Your task to perform on an android device: open app "Fetch Rewards" Image 0: 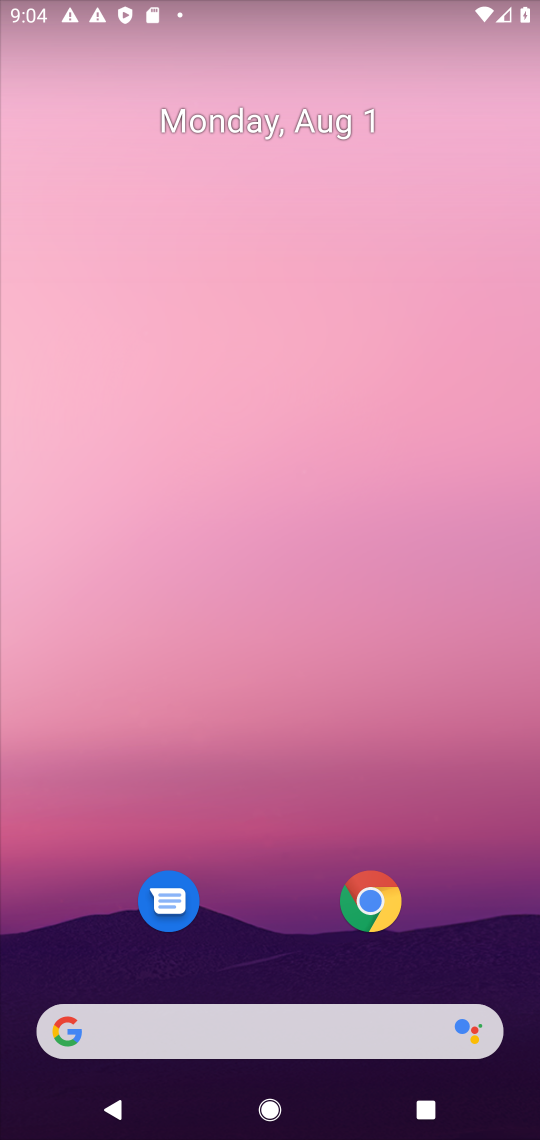
Step 0: press home button
Your task to perform on an android device: open app "Fetch Rewards" Image 1: 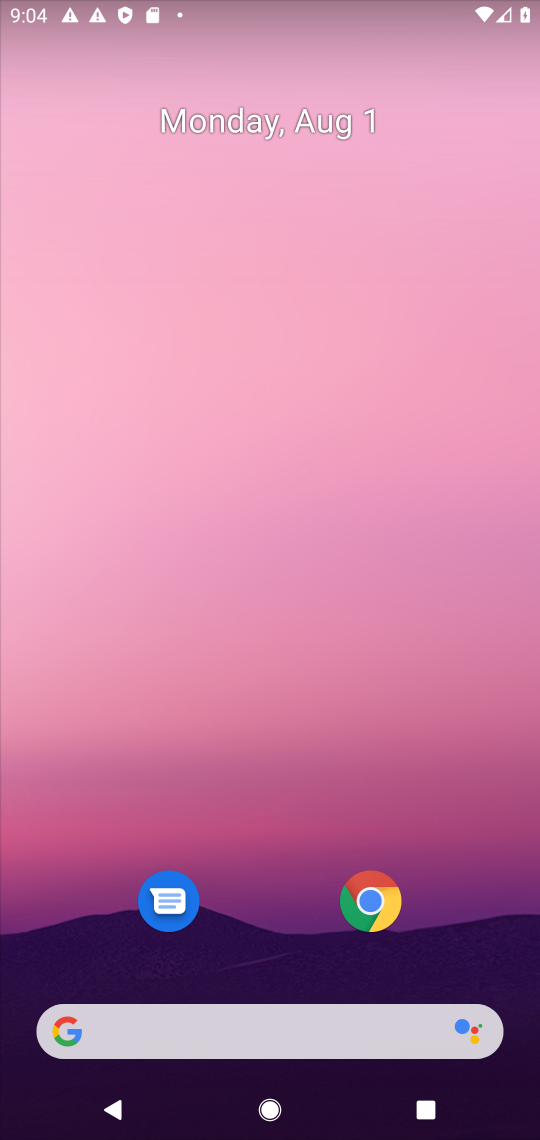
Step 1: drag from (259, 936) to (240, 65)
Your task to perform on an android device: open app "Fetch Rewards" Image 2: 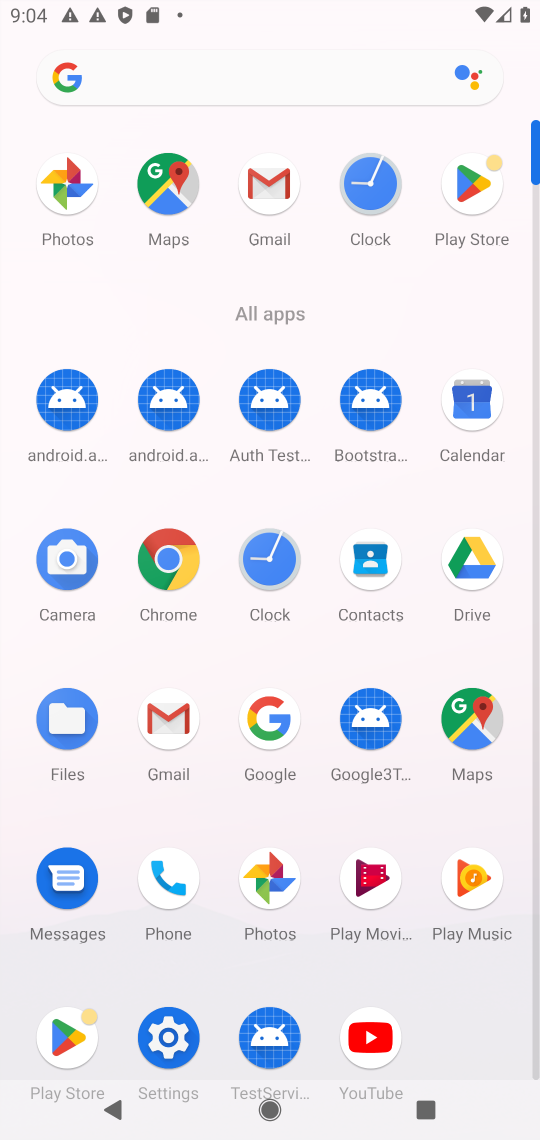
Step 2: click (478, 178)
Your task to perform on an android device: open app "Fetch Rewards" Image 3: 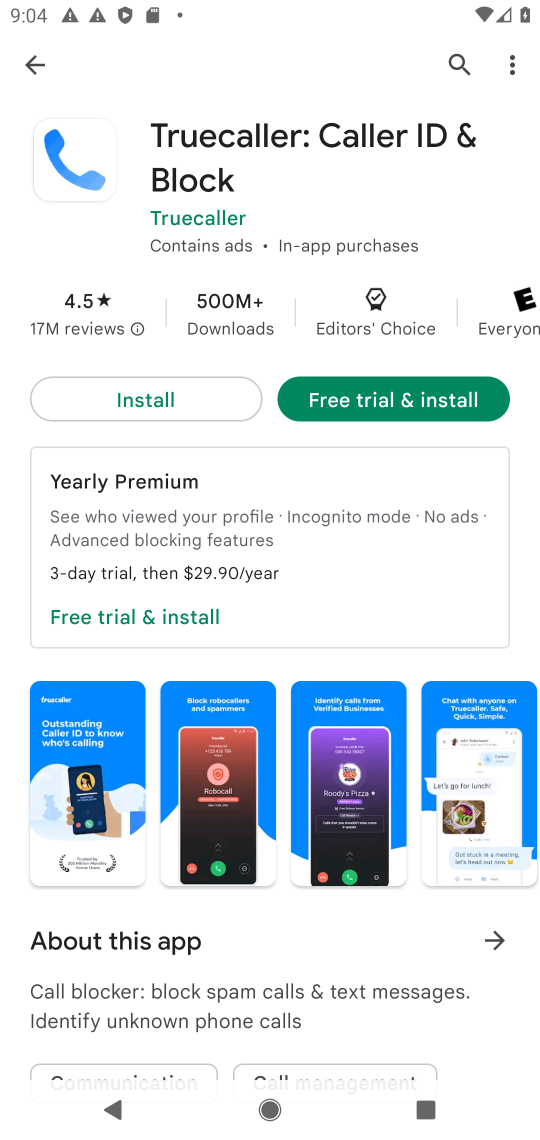
Step 3: click (456, 70)
Your task to perform on an android device: open app "Fetch Rewards" Image 4: 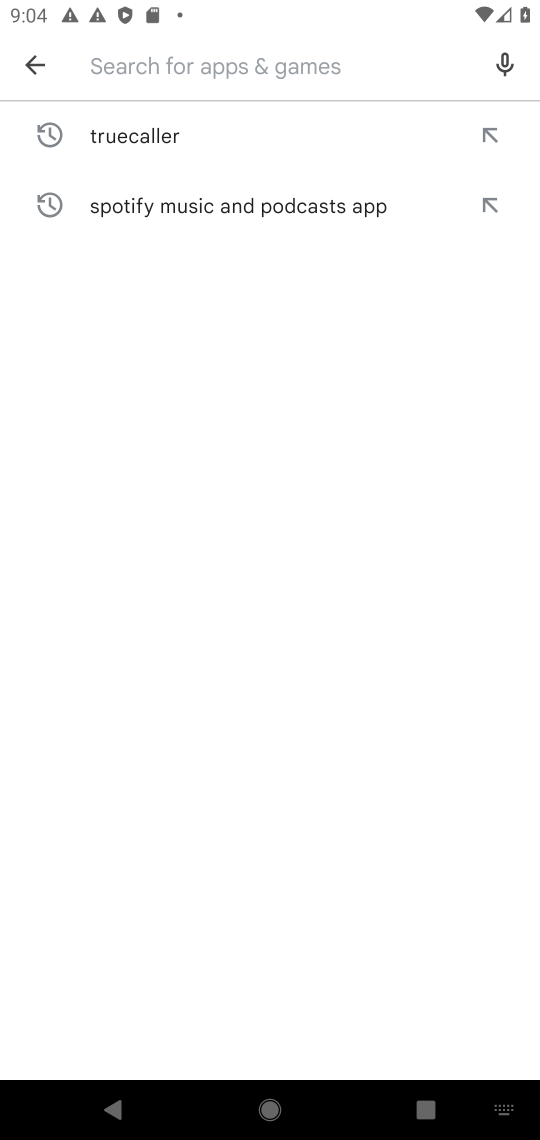
Step 4: type "fetch rewards"
Your task to perform on an android device: open app "Fetch Rewards" Image 5: 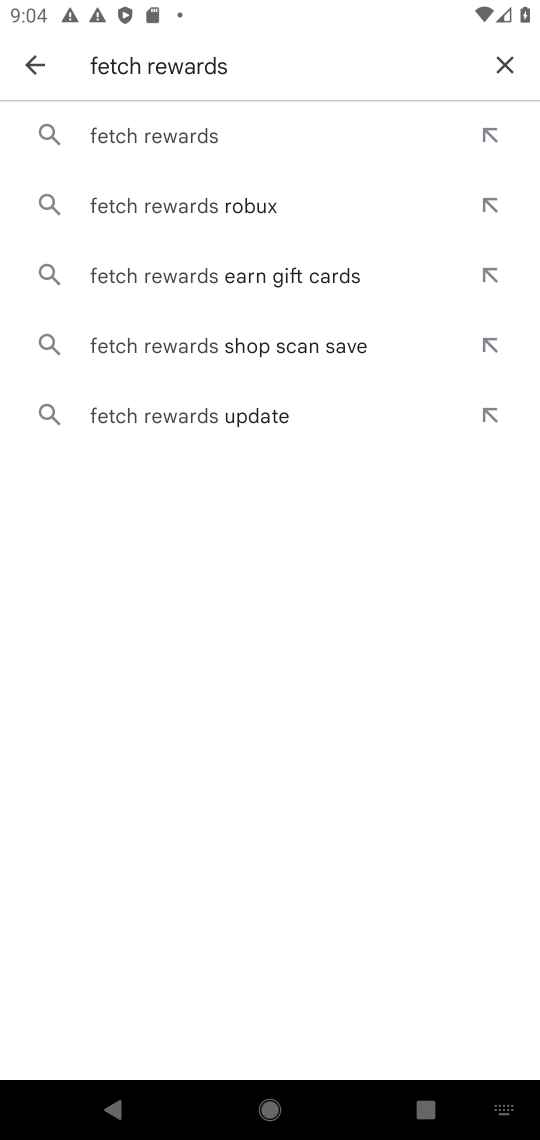
Step 5: click (263, 127)
Your task to perform on an android device: open app "Fetch Rewards" Image 6: 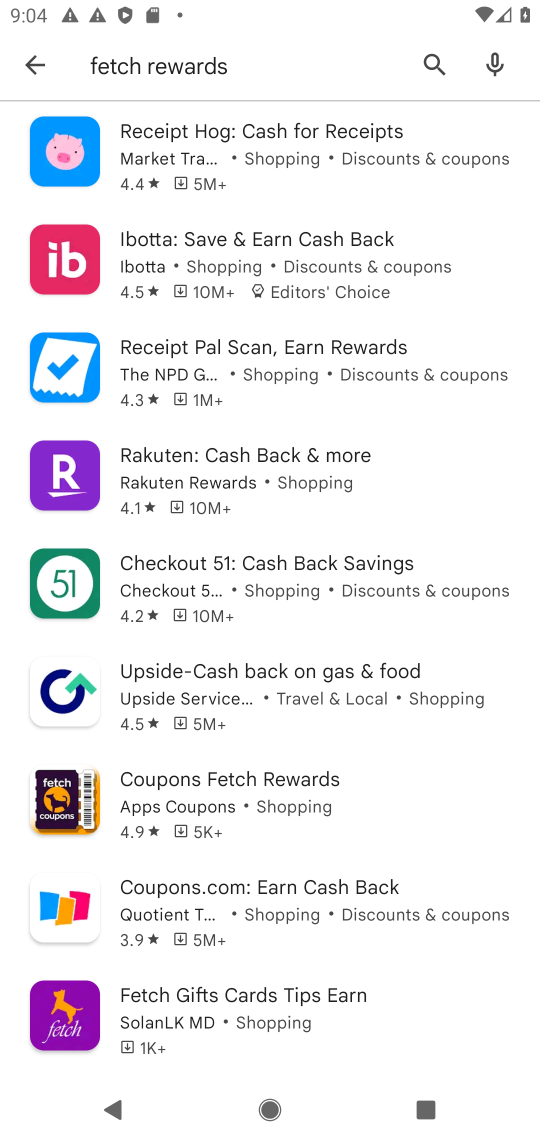
Step 6: task complete